Your task to perform on an android device: snooze an email in the gmail app Image 0: 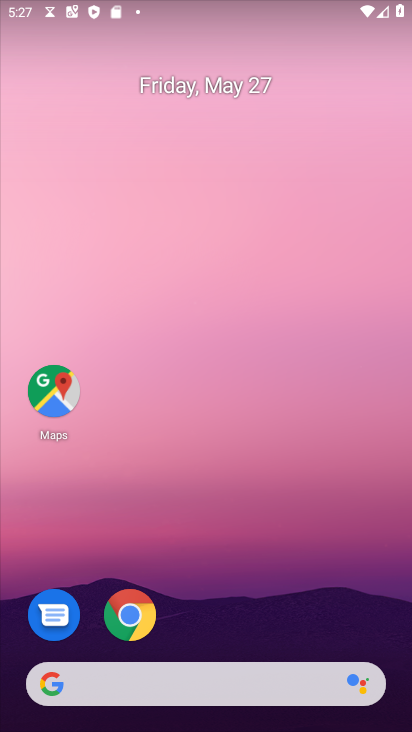
Step 0: drag from (279, 449) to (222, 51)
Your task to perform on an android device: snooze an email in the gmail app Image 1: 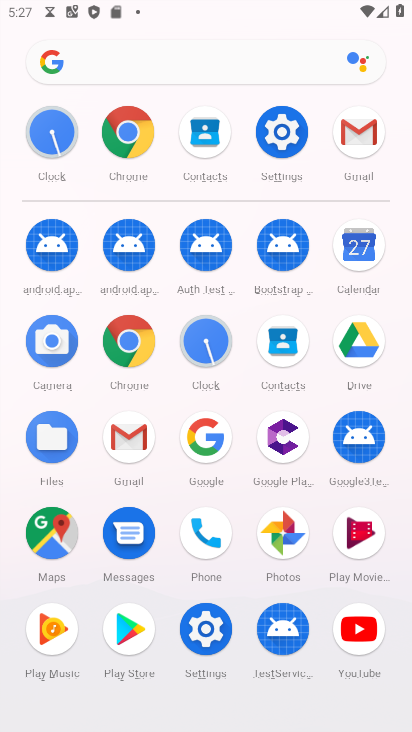
Step 1: click (120, 437)
Your task to perform on an android device: snooze an email in the gmail app Image 2: 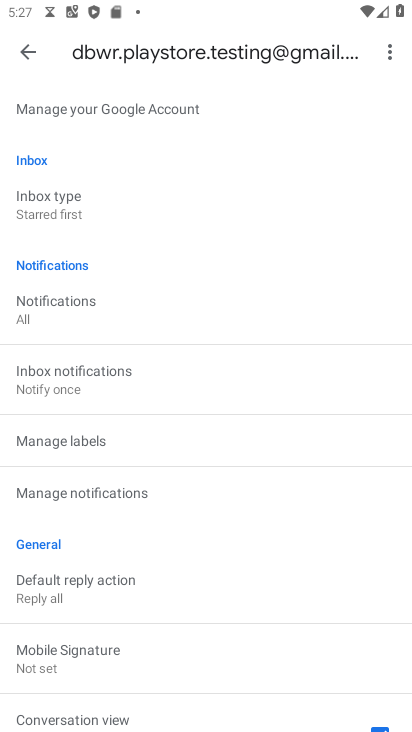
Step 2: click (30, 63)
Your task to perform on an android device: snooze an email in the gmail app Image 3: 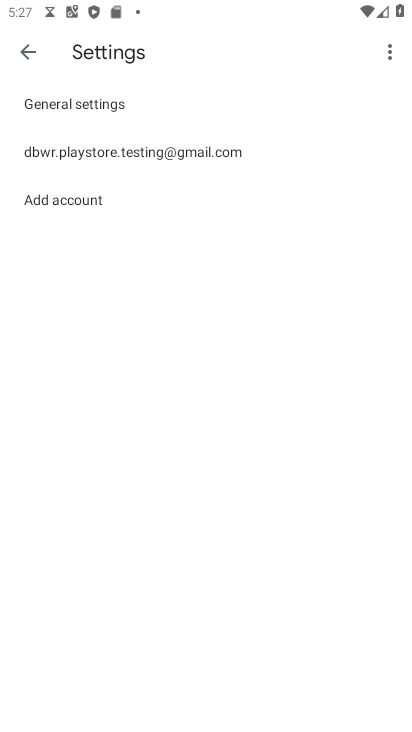
Step 3: click (26, 57)
Your task to perform on an android device: snooze an email in the gmail app Image 4: 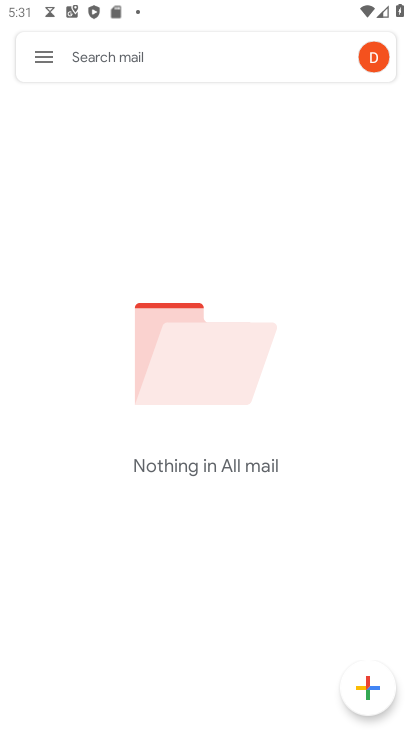
Step 4: task complete